Your task to perform on an android device: turn on location history Image 0: 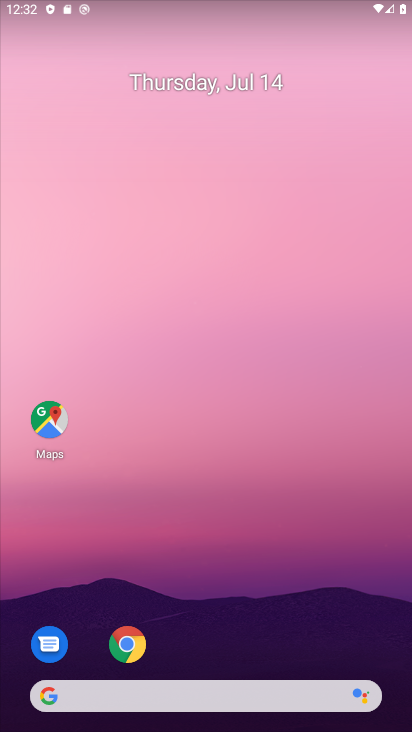
Step 0: drag from (284, 580) to (141, 113)
Your task to perform on an android device: turn on location history Image 1: 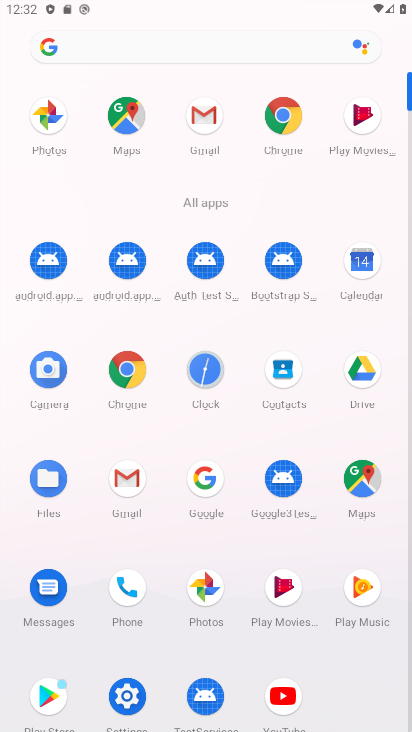
Step 1: click (126, 691)
Your task to perform on an android device: turn on location history Image 2: 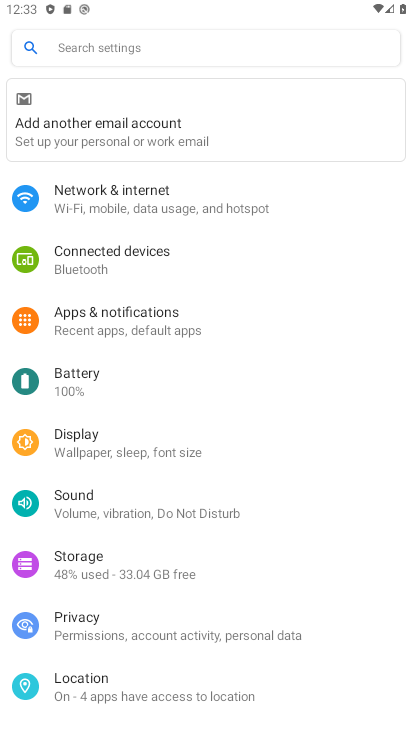
Step 2: click (139, 697)
Your task to perform on an android device: turn on location history Image 3: 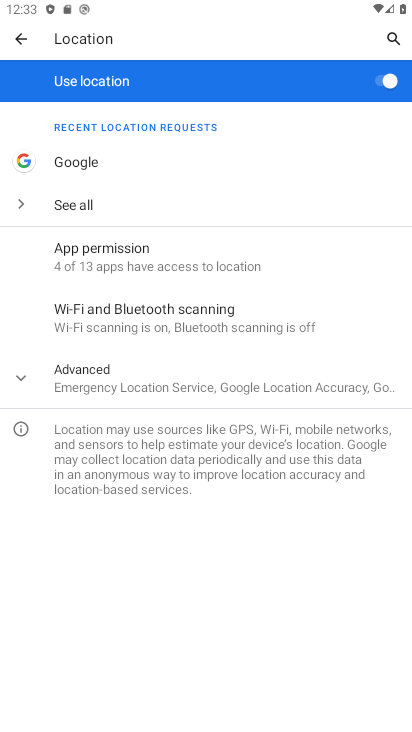
Step 3: click (153, 390)
Your task to perform on an android device: turn on location history Image 4: 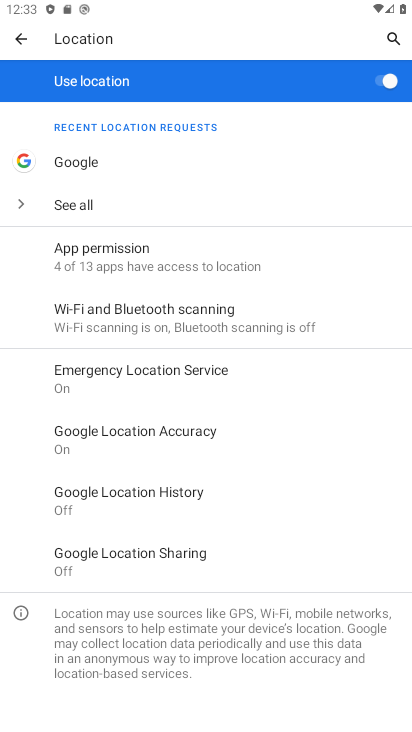
Step 4: click (183, 499)
Your task to perform on an android device: turn on location history Image 5: 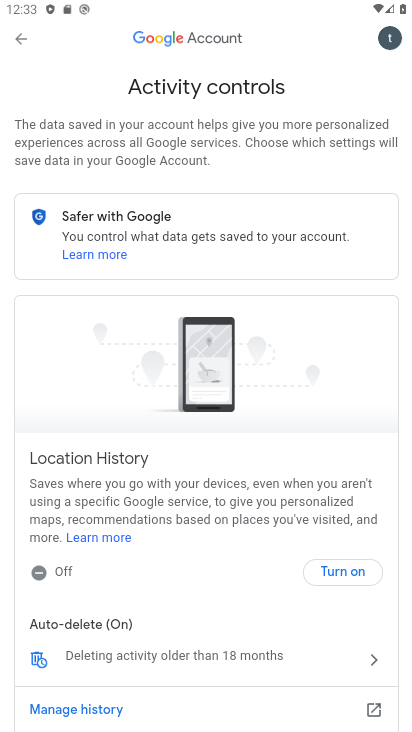
Step 5: click (346, 581)
Your task to perform on an android device: turn on location history Image 6: 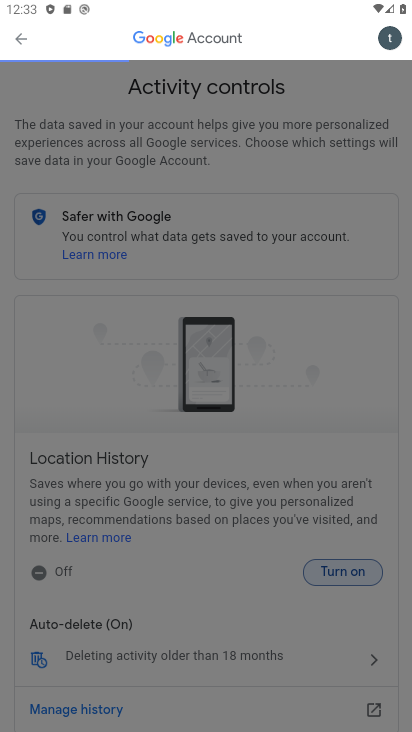
Step 6: click (342, 569)
Your task to perform on an android device: turn on location history Image 7: 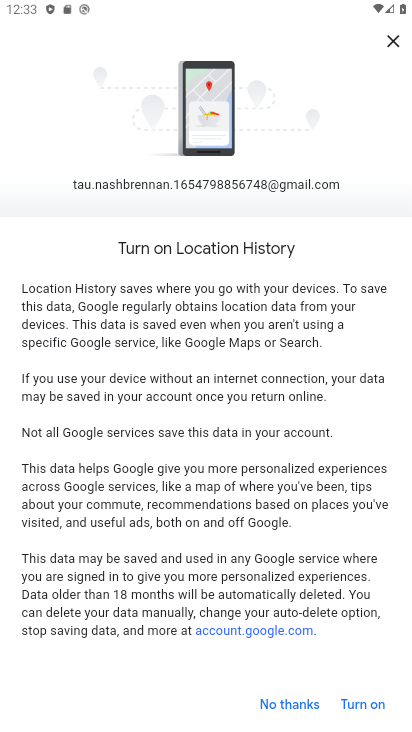
Step 7: click (367, 707)
Your task to perform on an android device: turn on location history Image 8: 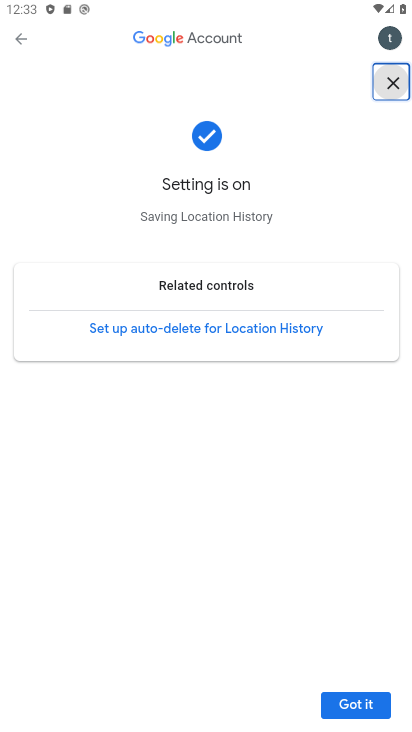
Step 8: task complete